Your task to perform on an android device: Do I have any events tomorrow? Image 0: 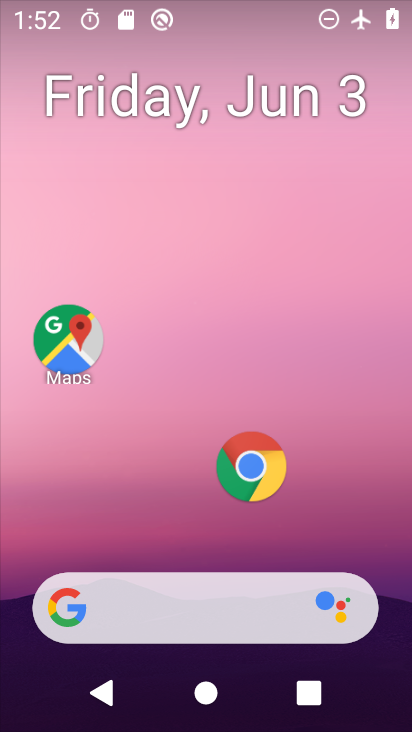
Step 0: drag from (184, 528) to (178, 121)
Your task to perform on an android device: Do I have any events tomorrow? Image 1: 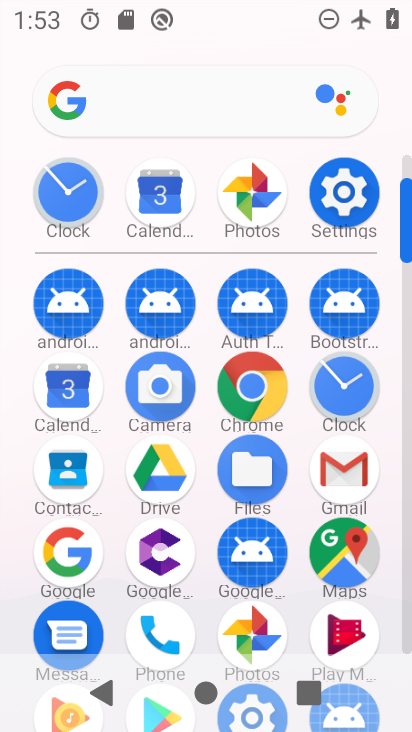
Step 1: click (74, 382)
Your task to perform on an android device: Do I have any events tomorrow? Image 2: 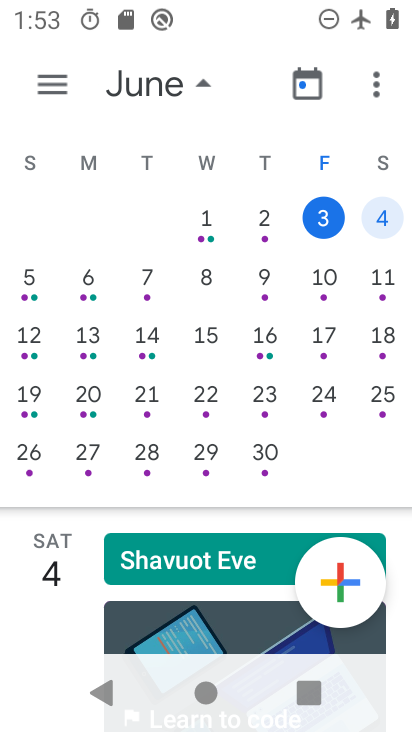
Step 2: click (368, 220)
Your task to perform on an android device: Do I have any events tomorrow? Image 3: 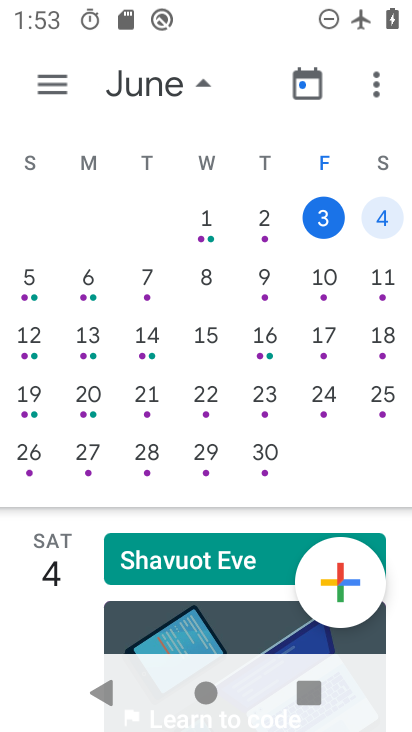
Step 3: task complete